Your task to perform on an android device: Open Chrome and go to settings Image 0: 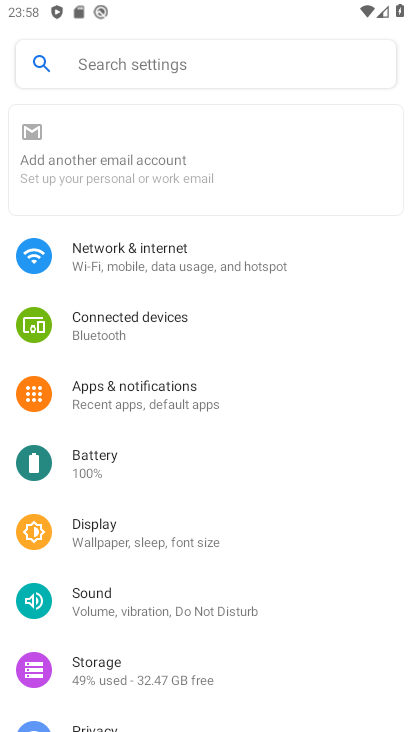
Step 0: press home button
Your task to perform on an android device: Open Chrome and go to settings Image 1: 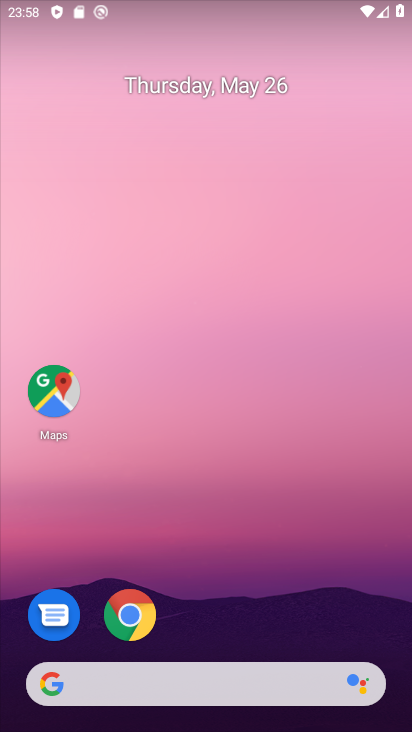
Step 1: click (155, 615)
Your task to perform on an android device: Open Chrome and go to settings Image 2: 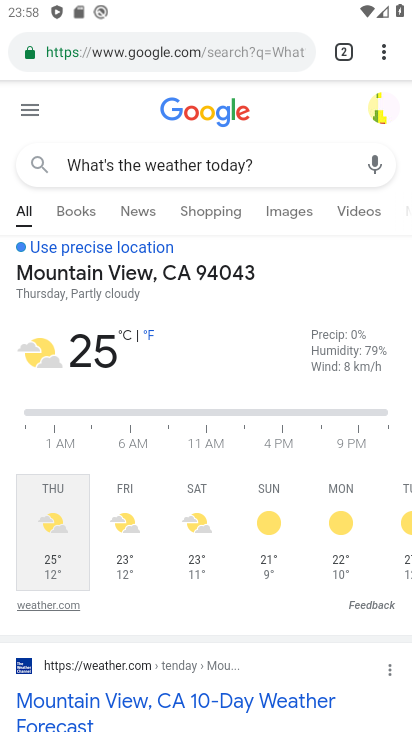
Step 2: task complete